Your task to perform on an android device: Go to sound settings Image 0: 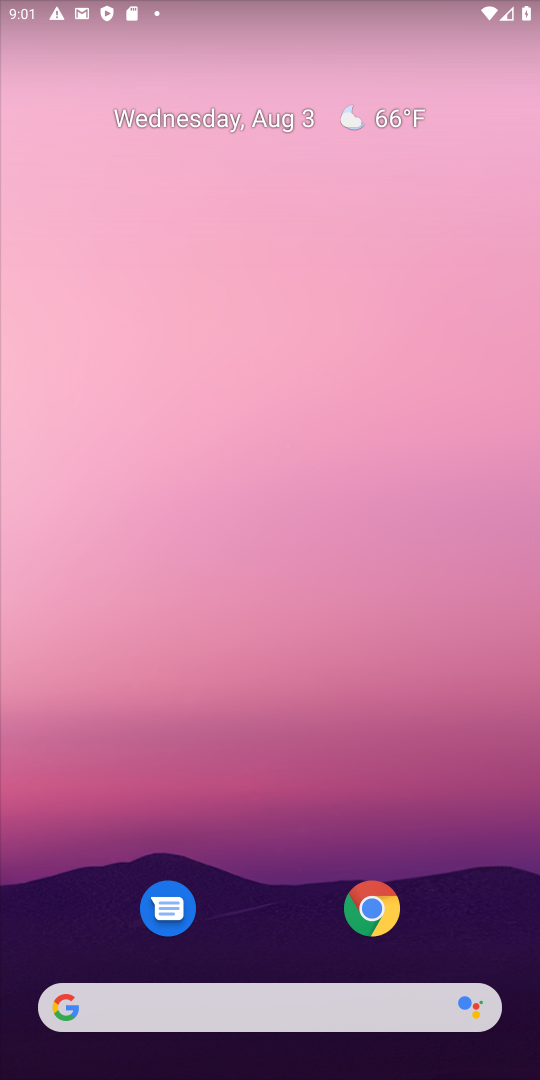
Step 0: drag from (268, 1005) to (343, 55)
Your task to perform on an android device: Go to sound settings Image 1: 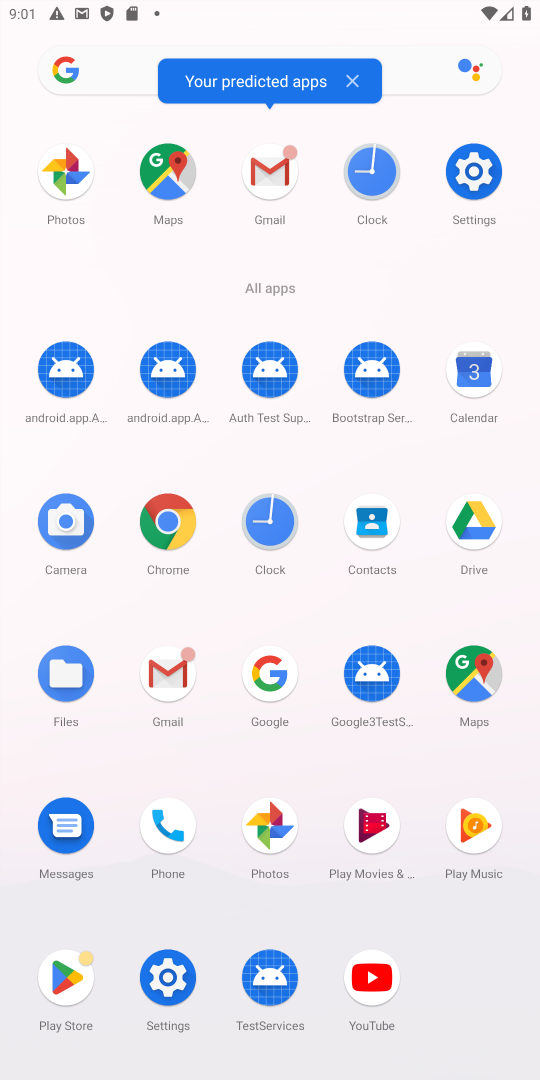
Step 1: click (475, 177)
Your task to perform on an android device: Go to sound settings Image 2: 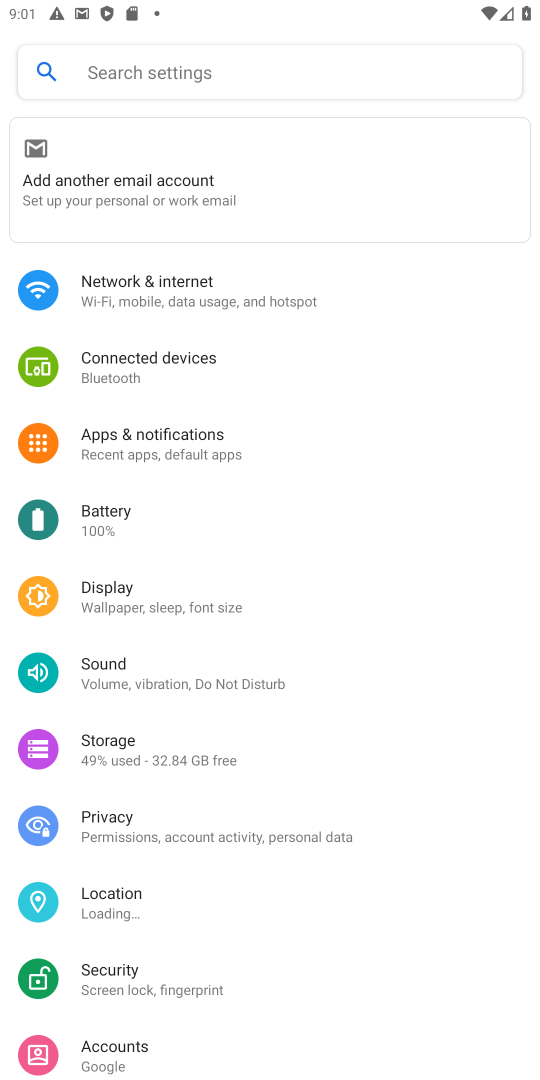
Step 2: click (123, 675)
Your task to perform on an android device: Go to sound settings Image 3: 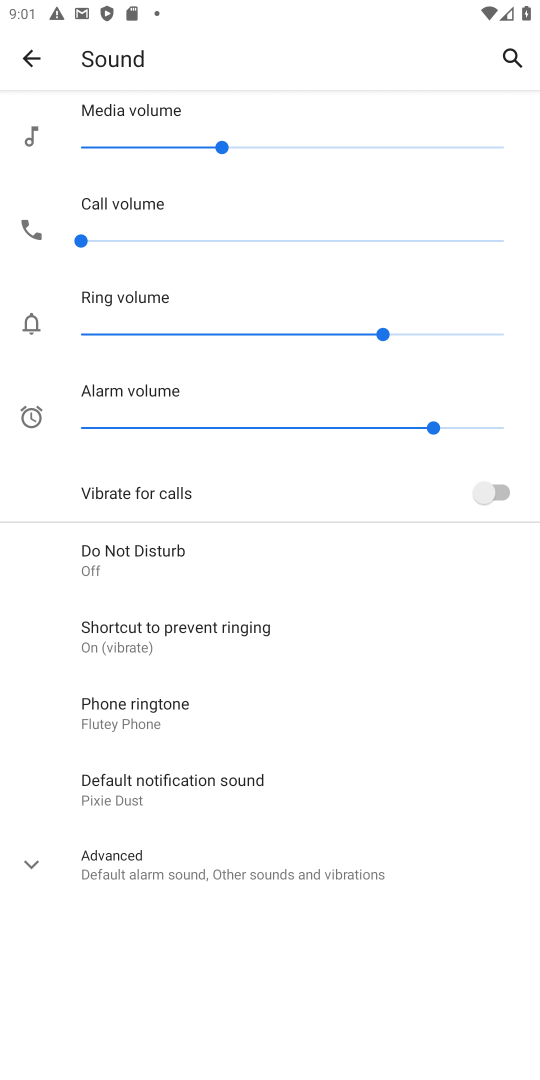
Step 3: task complete